Your task to perform on an android device: Open Google Chrome and click the shortcut for Amazon.com Image 0: 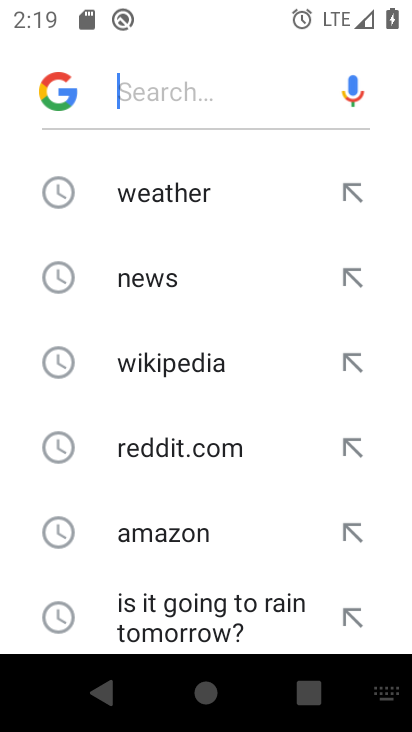
Step 0: press home button
Your task to perform on an android device: Open Google Chrome and click the shortcut for Amazon.com Image 1: 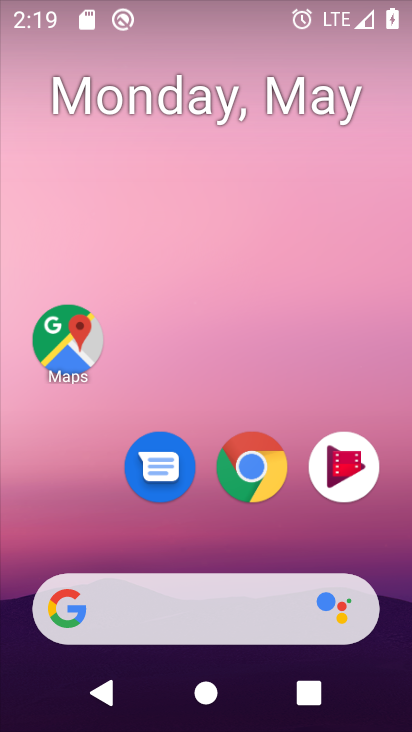
Step 1: click (245, 464)
Your task to perform on an android device: Open Google Chrome and click the shortcut for Amazon.com Image 2: 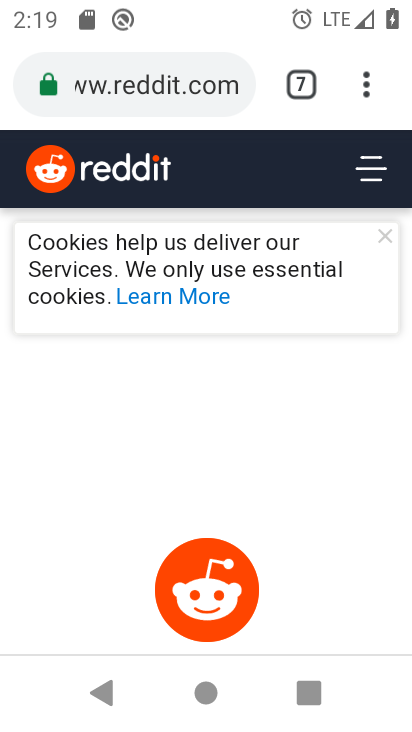
Step 2: click (350, 79)
Your task to perform on an android device: Open Google Chrome and click the shortcut for Amazon.com Image 3: 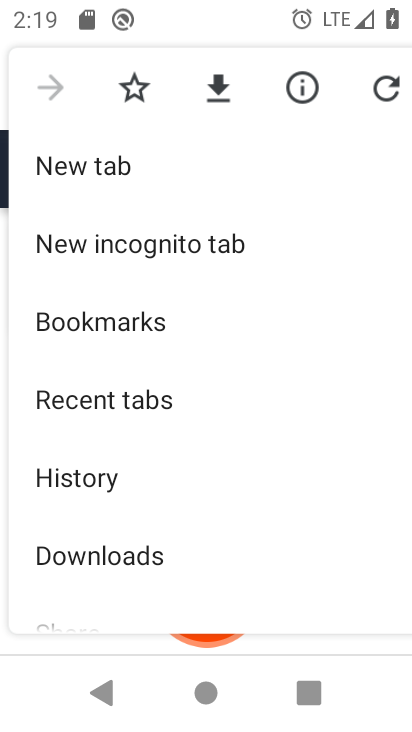
Step 3: click (91, 164)
Your task to perform on an android device: Open Google Chrome and click the shortcut for Amazon.com Image 4: 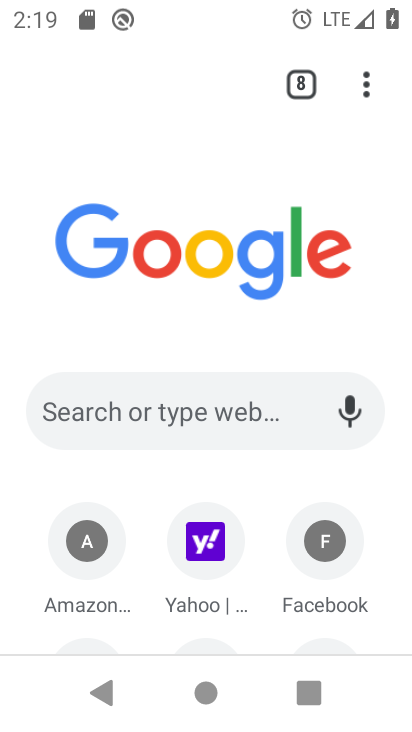
Step 4: drag from (257, 574) to (303, 331)
Your task to perform on an android device: Open Google Chrome and click the shortcut for Amazon.com Image 5: 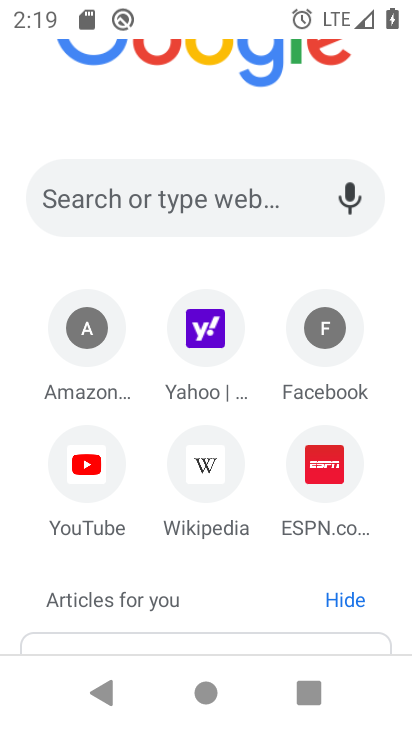
Step 5: click (79, 320)
Your task to perform on an android device: Open Google Chrome and click the shortcut for Amazon.com Image 6: 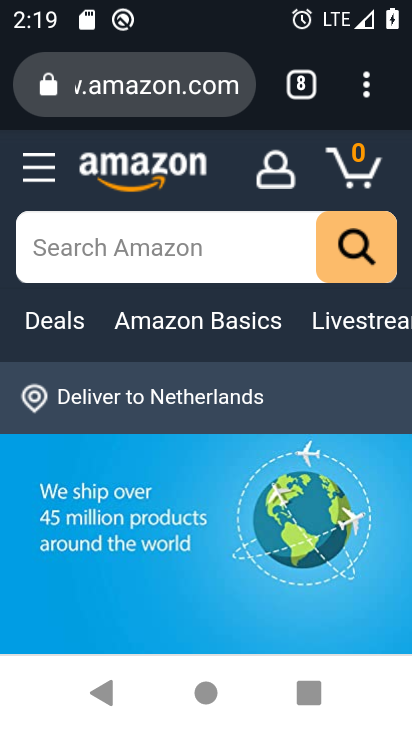
Step 6: task complete